Your task to perform on an android device: Open Chrome and go to settings Image 0: 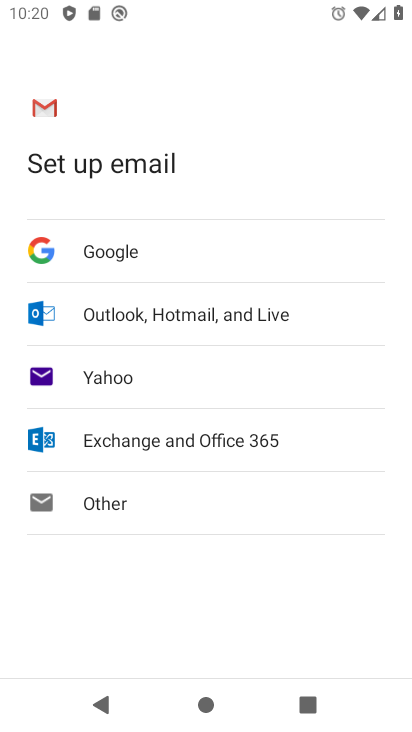
Step 0: press home button
Your task to perform on an android device: Open Chrome and go to settings Image 1: 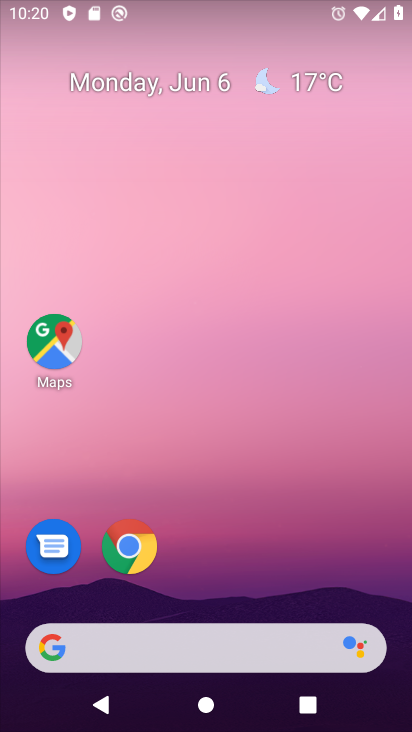
Step 1: click (131, 544)
Your task to perform on an android device: Open Chrome and go to settings Image 2: 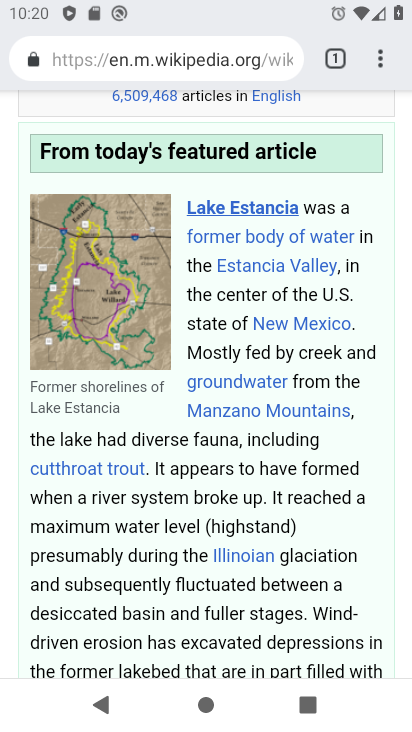
Step 2: click (379, 61)
Your task to perform on an android device: Open Chrome and go to settings Image 3: 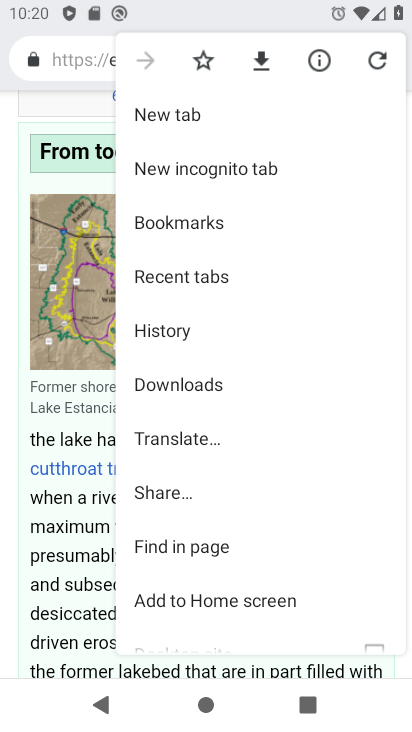
Step 3: drag from (213, 562) to (252, 329)
Your task to perform on an android device: Open Chrome and go to settings Image 4: 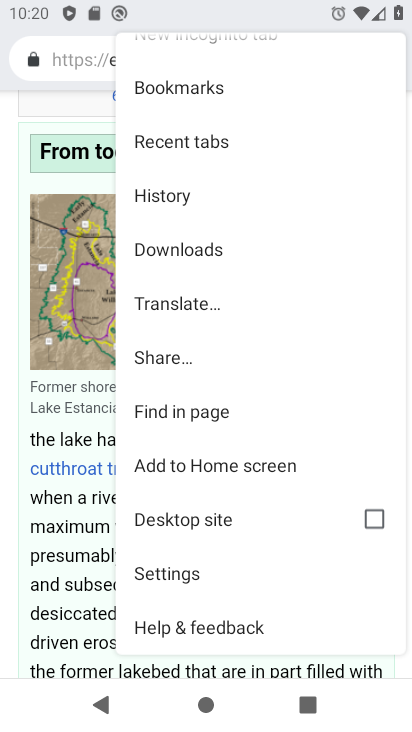
Step 4: click (202, 580)
Your task to perform on an android device: Open Chrome and go to settings Image 5: 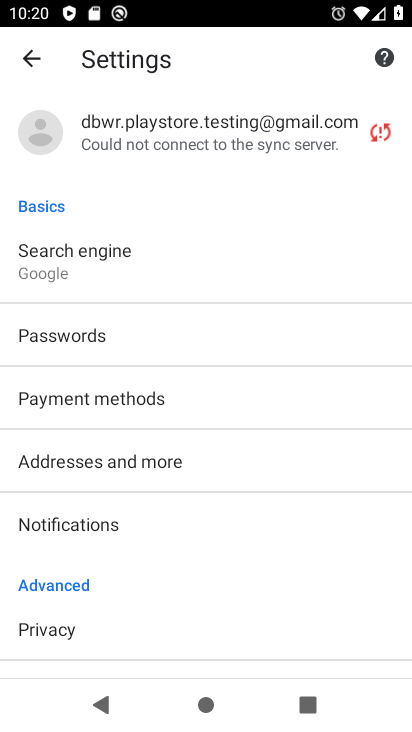
Step 5: task complete